Your task to perform on an android device: check the backup settings in the google photos Image 0: 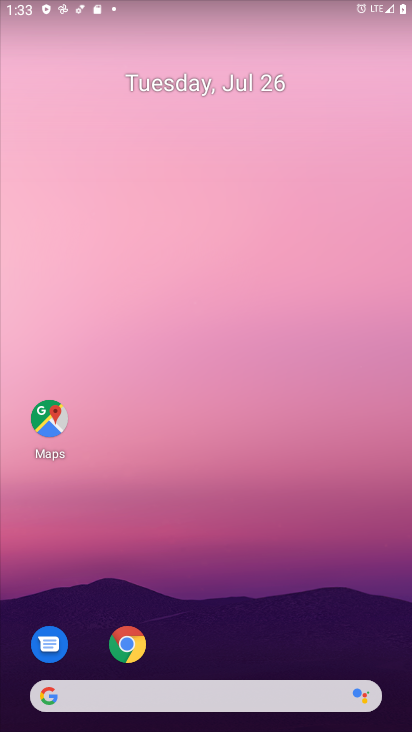
Step 0: drag from (199, 616) to (74, 6)
Your task to perform on an android device: check the backup settings in the google photos Image 1: 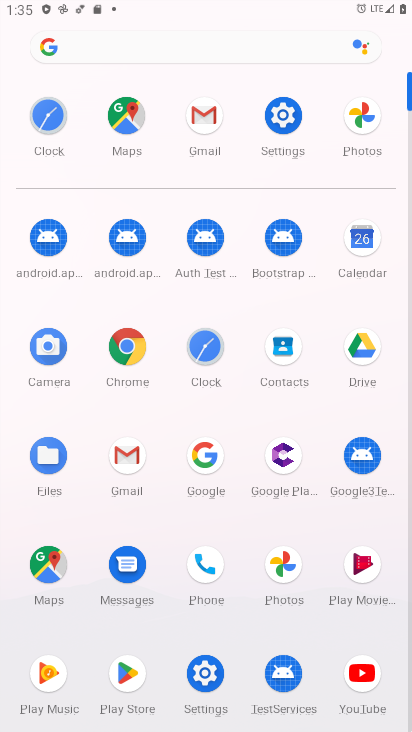
Step 1: click (352, 114)
Your task to perform on an android device: check the backup settings in the google photos Image 2: 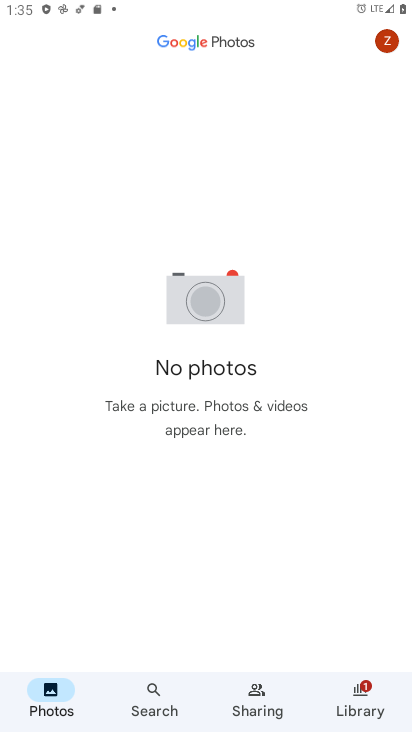
Step 2: click (388, 41)
Your task to perform on an android device: check the backup settings in the google photos Image 3: 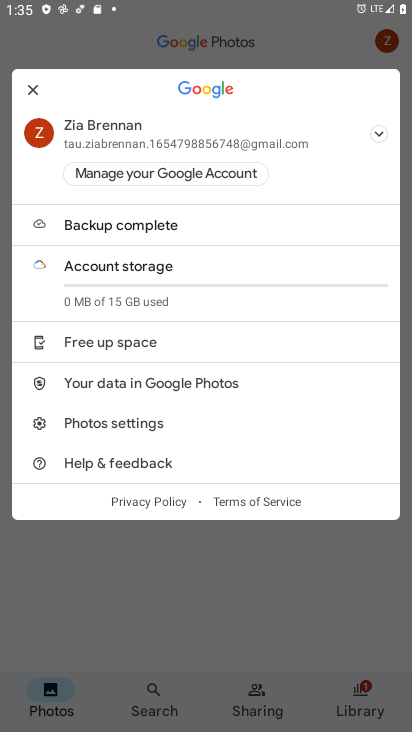
Step 3: click (118, 425)
Your task to perform on an android device: check the backup settings in the google photos Image 4: 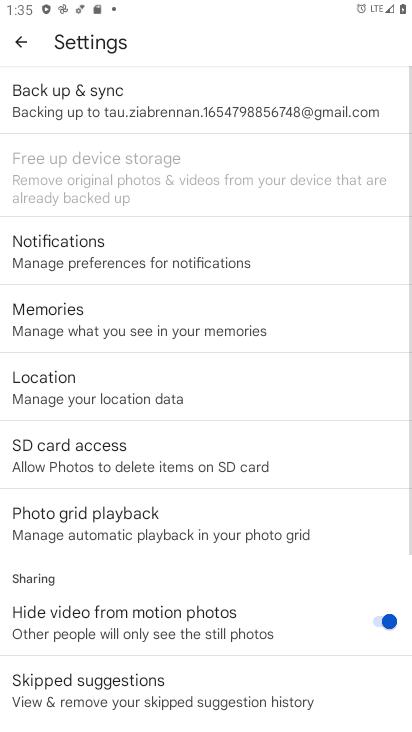
Step 4: click (250, 101)
Your task to perform on an android device: check the backup settings in the google photos Image 5: 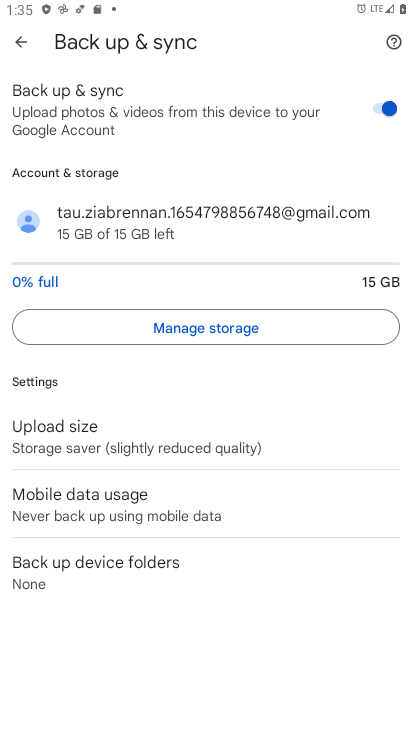
Step 5: task complete